Your task to perform on an android device: Go to sound settings Image 0: 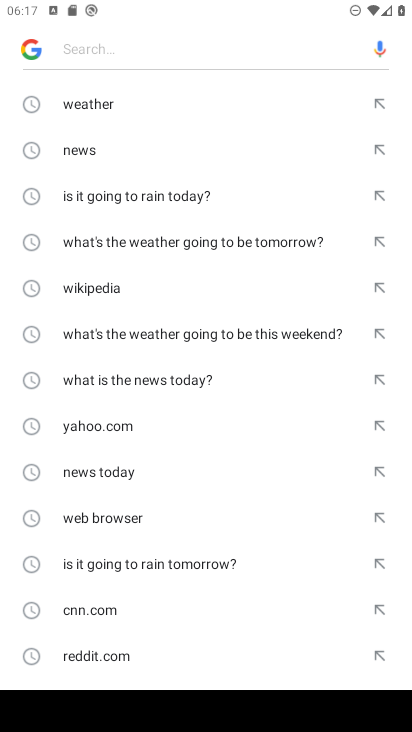
Step 0: press home button
Your task to perform on an android device: Go to sound settings Image 1: 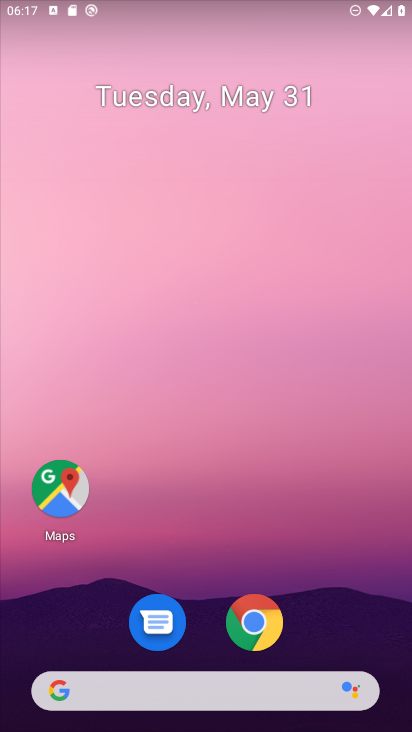
Step 1: drag from (330, 690) to (282, 5)
Your task to perform on an android device: Go to sound settings Image 2: 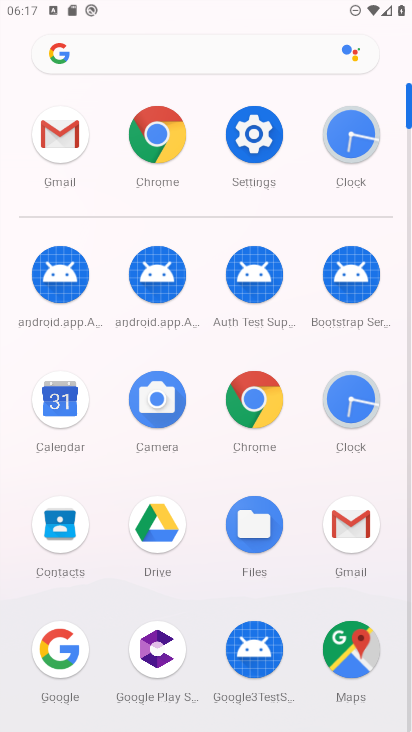
Step 2: click (259, 139)
Your task to perform on an android device: Go to sound settings Image 3: 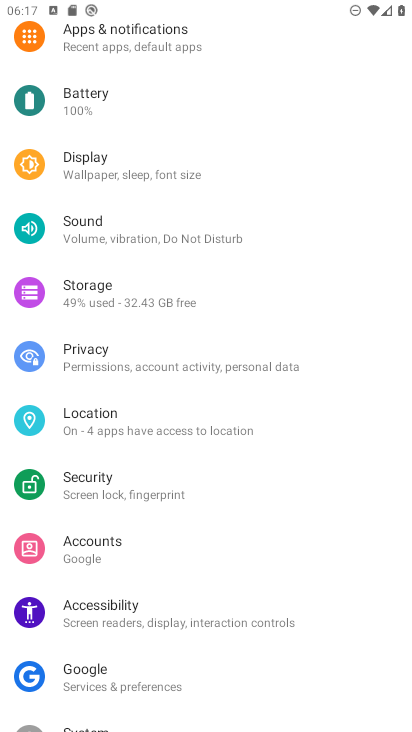
Step 3: click (116, 228)
Your task to perform on an android device: Go to sound settings Image 4: 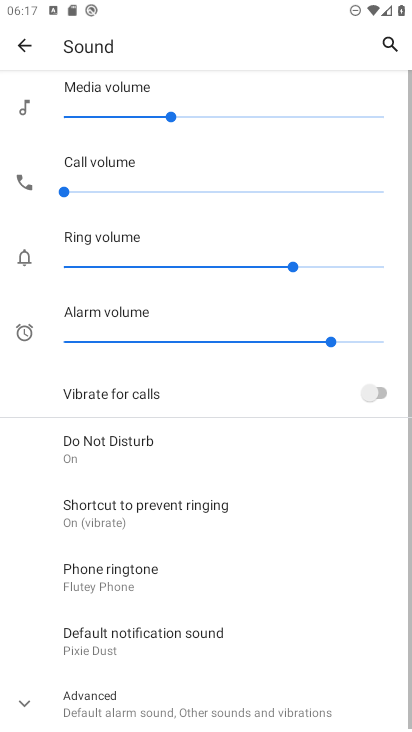
Step 4: task complete